Your task to perform on an android device: see creations saved in the google photos Image 0: 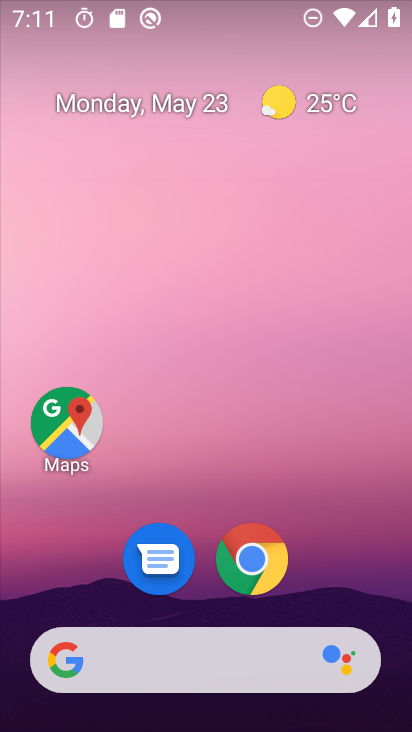
Step 0: drag from (389, 621) to (355, 23)
Your task to perform on an android device: see creations saved in the google photos Image 1: 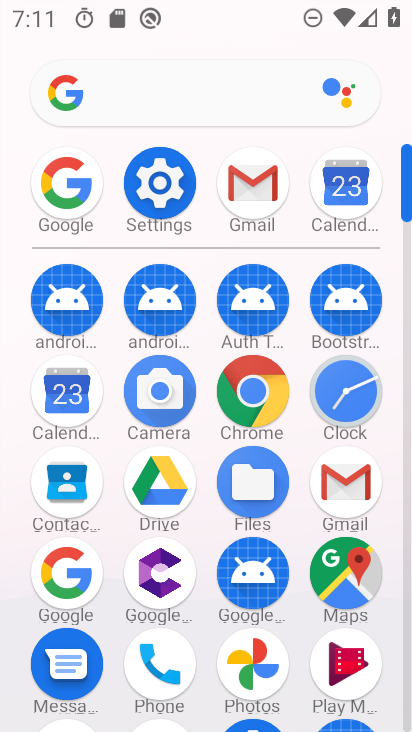
Step 1: click (254, 652)
Your task to perform on an android device: see creations saved in the google photos Image 2: 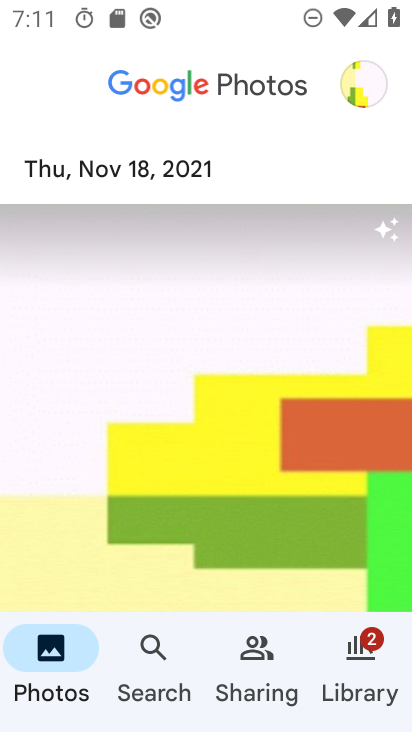
Step 2: click (142, 653)
Your task to perform on an android device: see creations saved in the google photos Image 3: 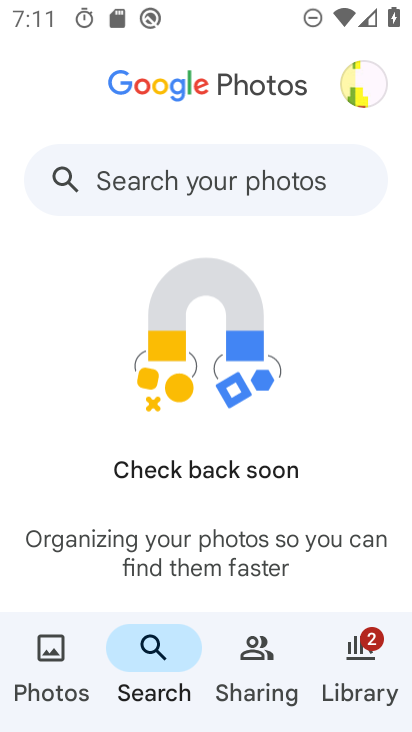
Step 3: drag from (161, 540) to (214, 32)
Your task to perform on an android device: see creations saved in the google photos Image 4: 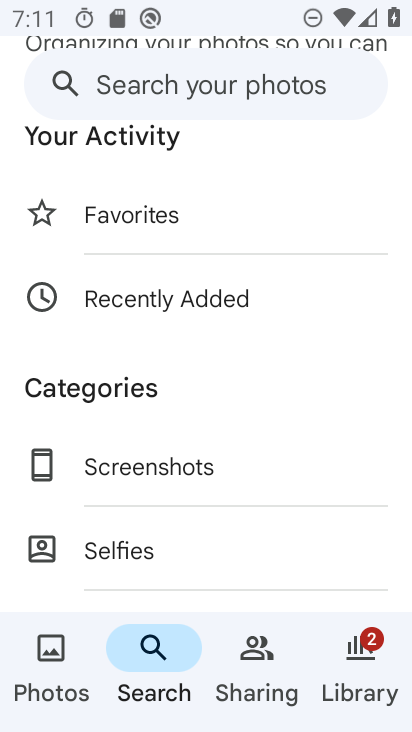
Step 4: drag from (167, 526) to (188, 24)
Your task to perform on an android device: see creations saved in the google photos Image 5: 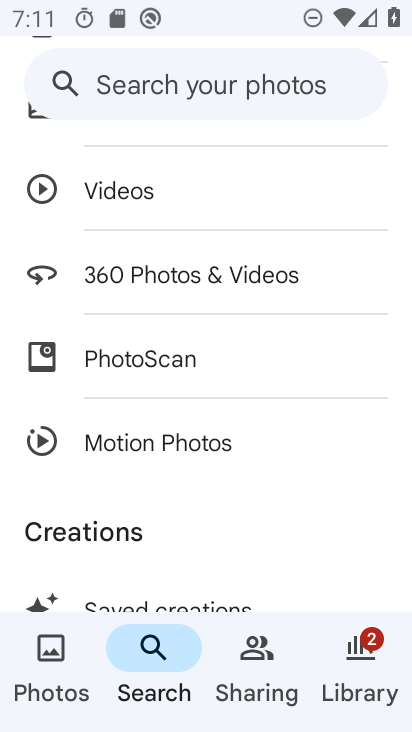
Step 5: click (153, 588)
Your task to perform on an android device: see creations saved in the google photos Image 6: 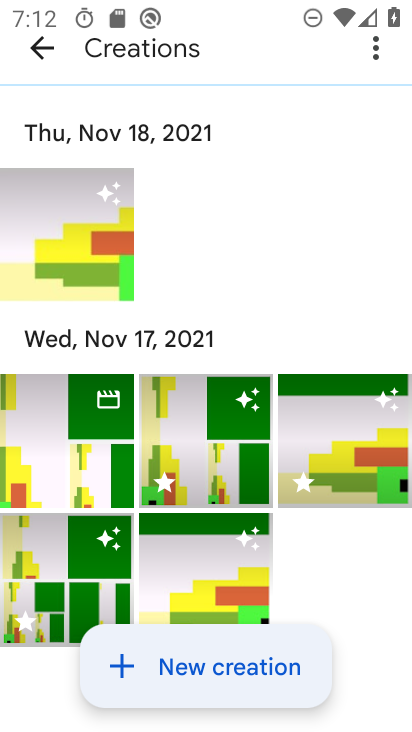
Step 6: task complete